Your task to perform on an android device: Turn on the flashlight Image 0: 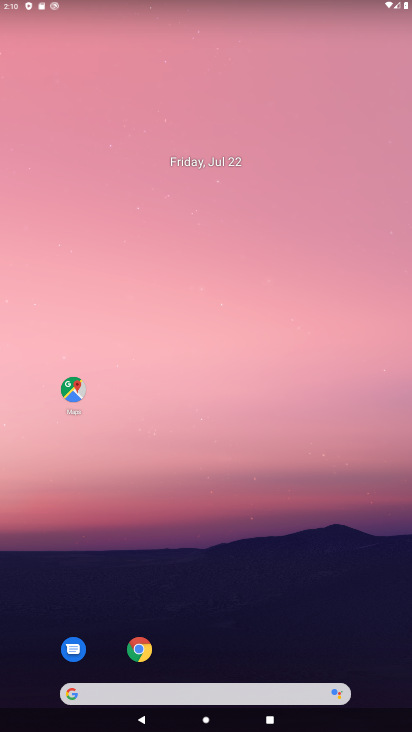
Step 0: drag from (234, 1) to (211, 417)
Your task to perform on an android device: Turn on the flashlight Image 1: 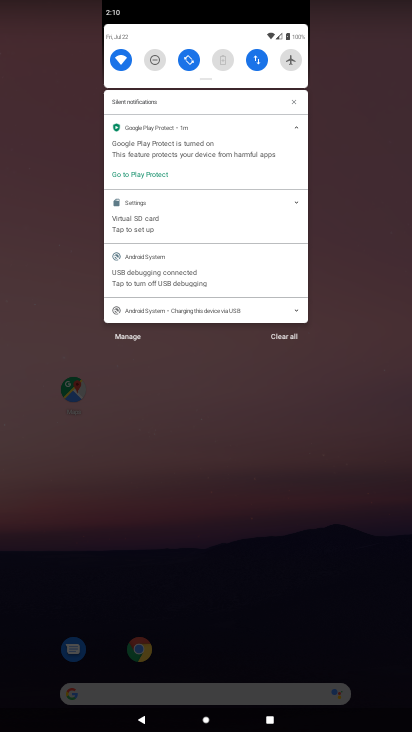
Step 1: drag from (207, 67) to (229, 528)
Your task to perform on an android device: Turn on the flashlight Image 2: 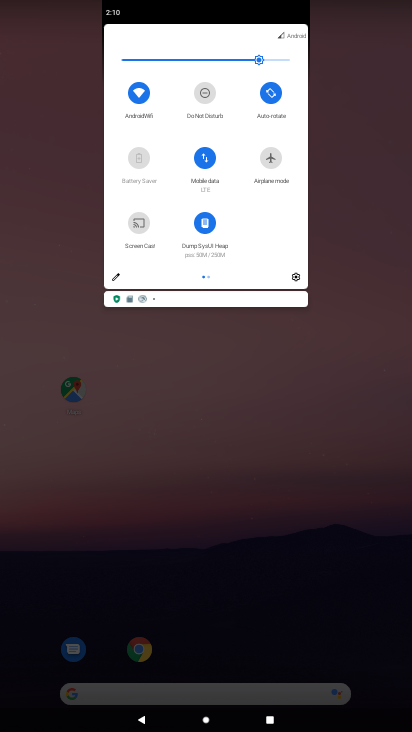
Step 2: click (111, 285)
Your task to perform on an android device: Turn on the flashlight Image 3: 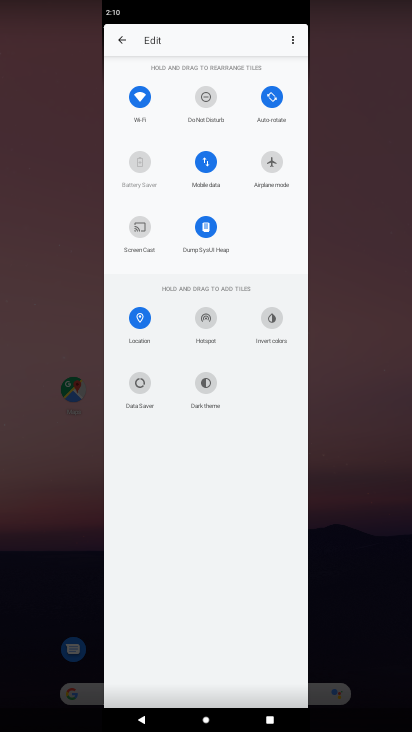
Step 3: task complete